Your task to perform on an android device: turn on sleep mode Image 0: 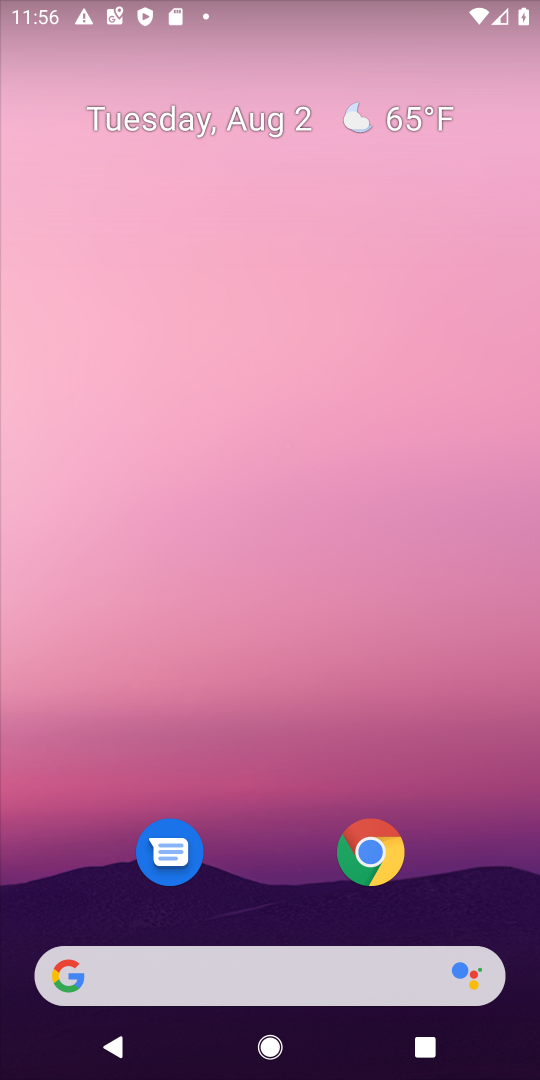
Step 0: drag from (503, 897) to (234, 67)
Your task to perform on an android device: turn on sleep mode Image 1: 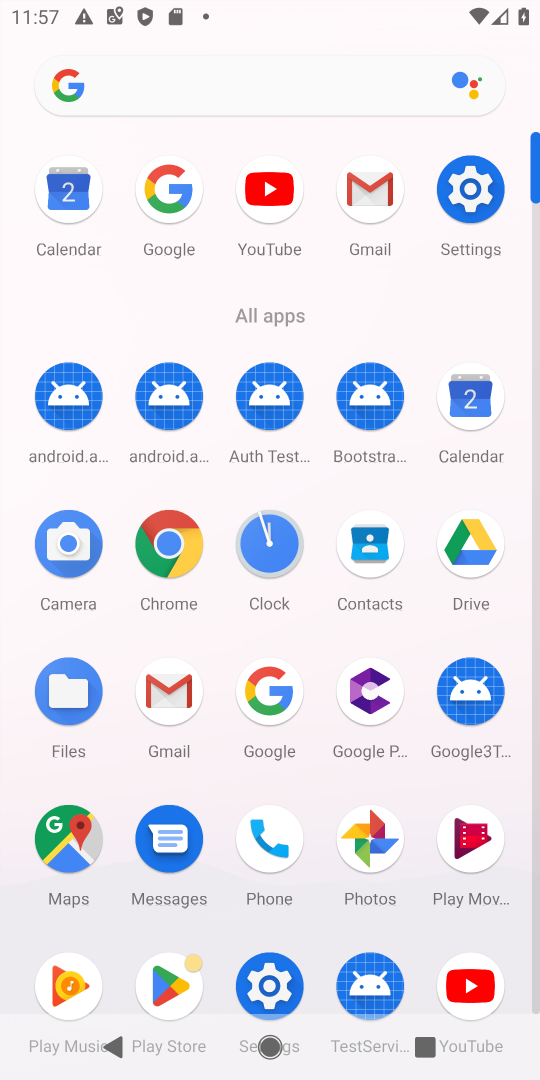
Step 1: click (276, 961)
Your task to perform on an android device: turn on sleep mode Image 2: 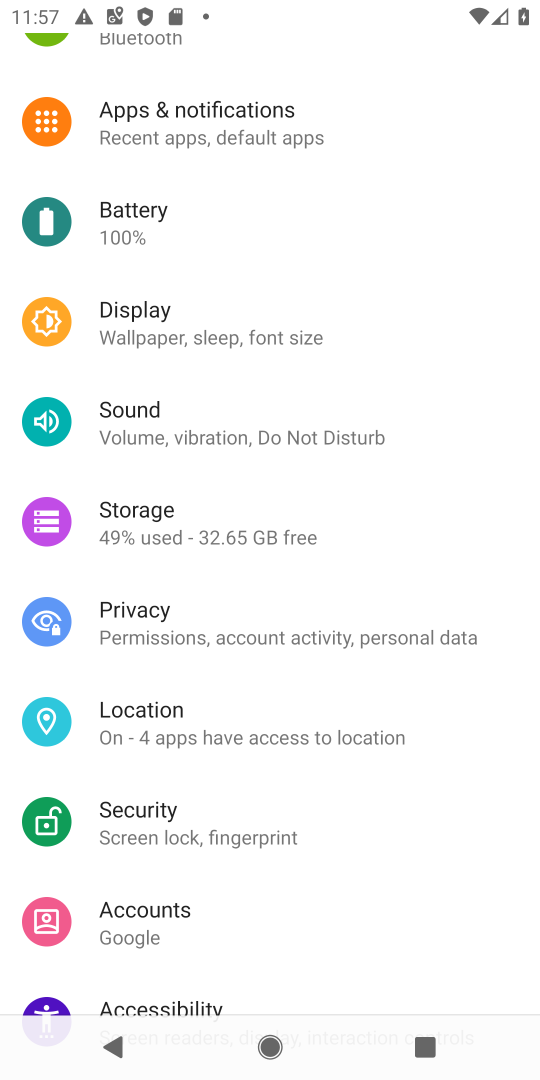
Step 2: task complete